Your task to perform on an android device: Search for vegetarian restaurants on Maps Image 0: 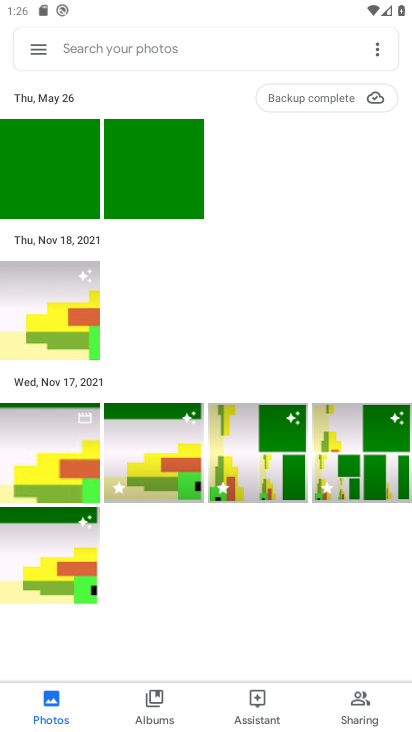
Step 0: press home button
Your task to perform on an android device: Search for vegetarian restaurants on Maps Image 1: 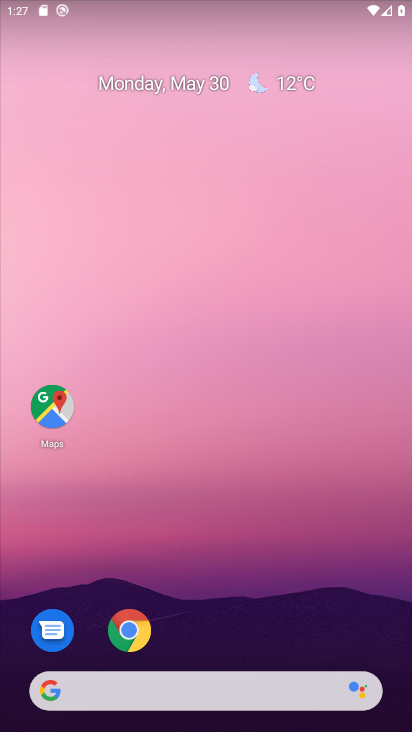
Step 1: click (56, 431)
Your task to perform on an android device: Search for vegetarian restaurants on Maps Image 2: 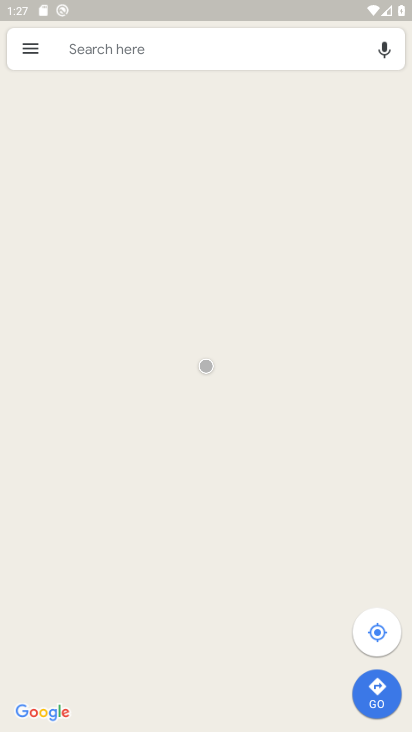
Step 2: click (245, 58)
Your task to perform on an android device: Search for vegetarian restaurants on Maps Image 3: 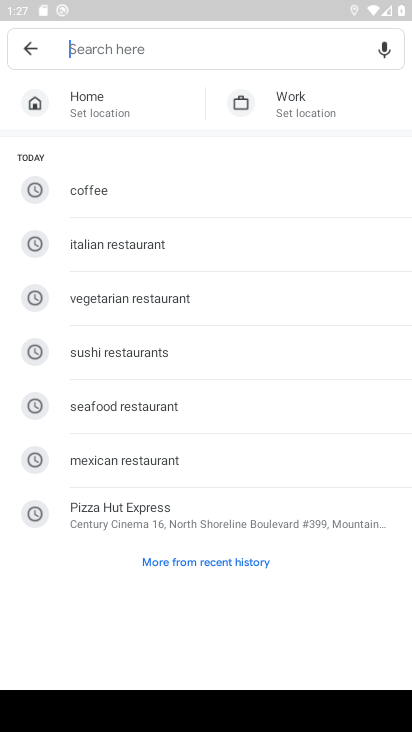
Step 3: type "vegetarian restaurants"
Your task to perform on an android device: Search for vegetarian restaurants on Maps Image 4: 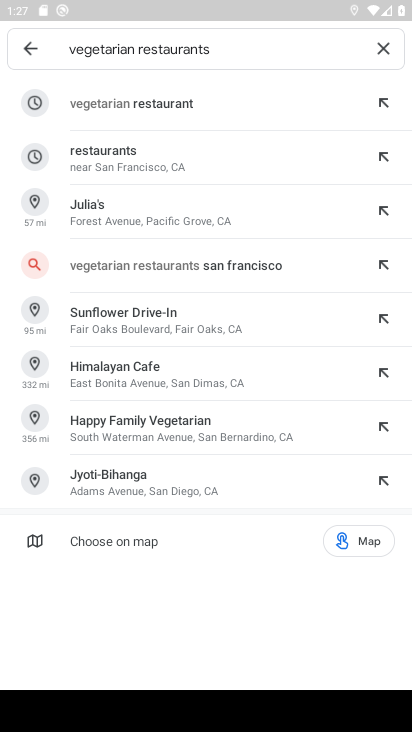
Step 4: click (150, 103)
Your task to perform on an android device: Search for vegetarian restaurants on Maps Image 5: 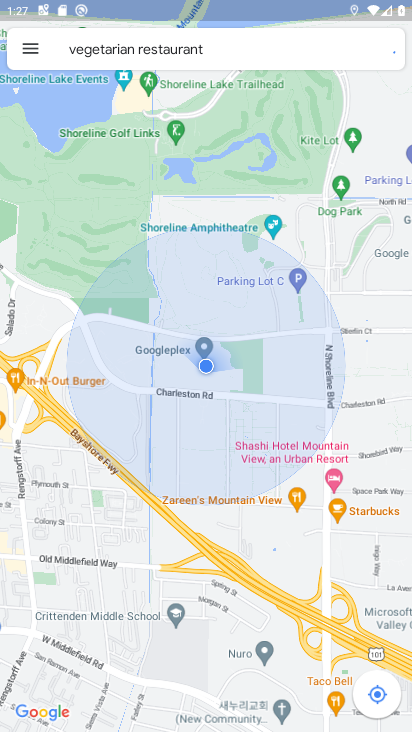
Step 5: task complete